Your task to perform on an android device: Find coffee shops on Maps Image 0: 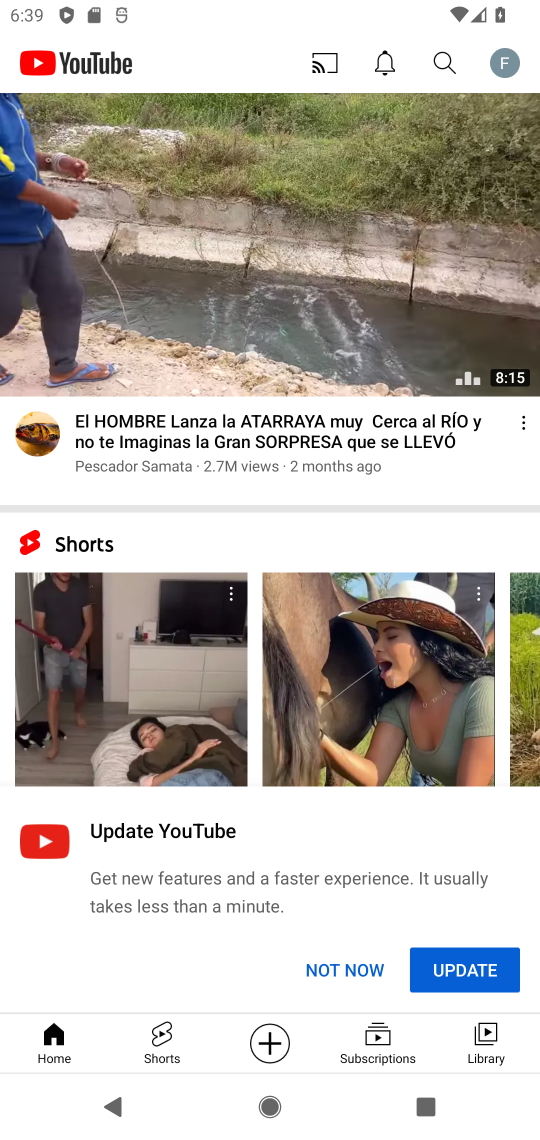
Step 0: press home button
Your task to perform on an android device: Find coffee shops on Maps Image 1: 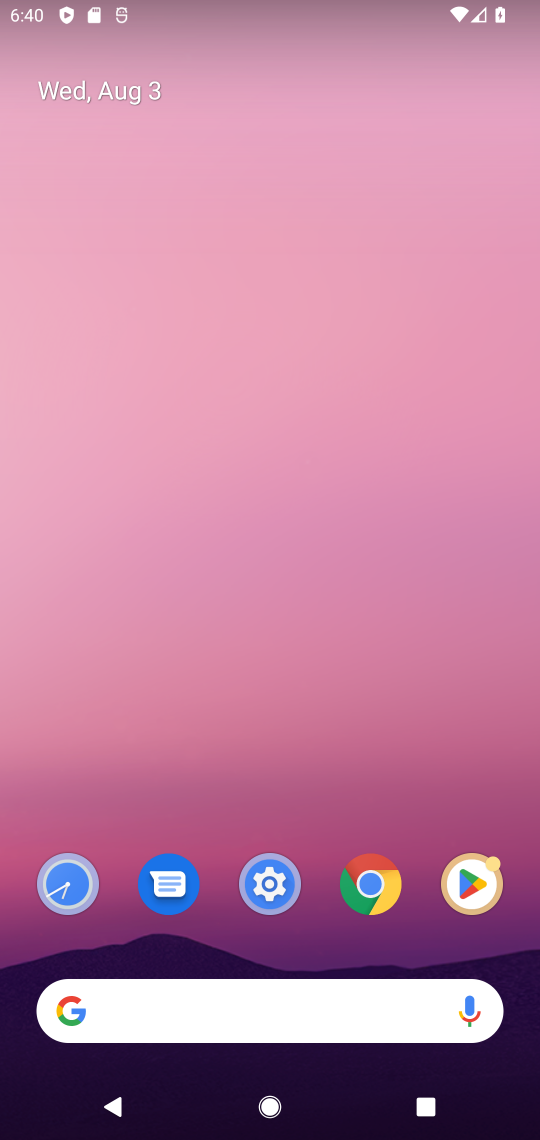
Step 1: drag from (333, 726) to (384, 134)
Your task to perform on an android device: Find coffee shops on Maps Image 2: 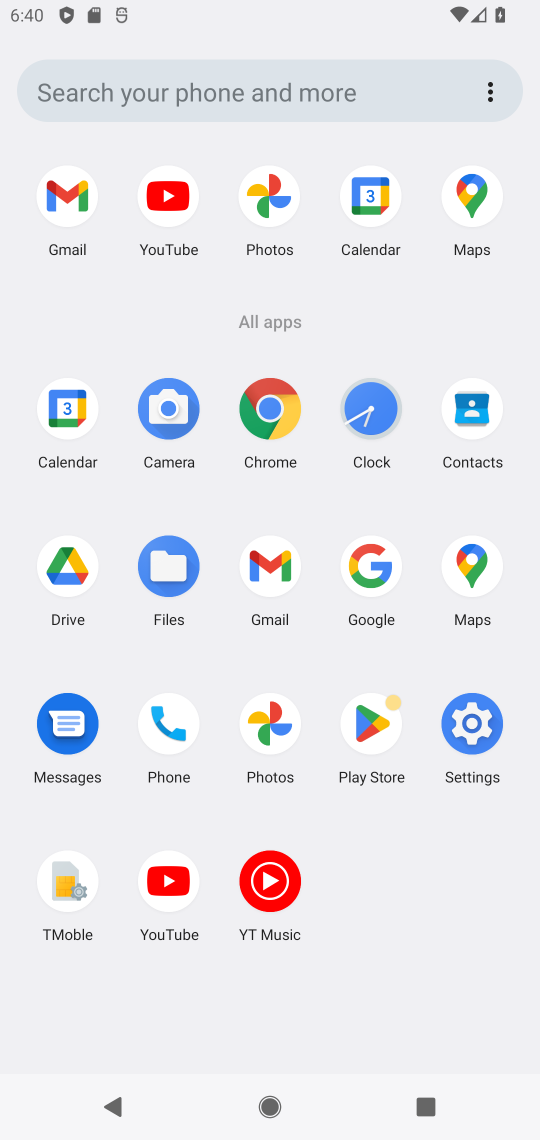
Step 2: click (465, 582)
Your task to perform on an android device: Find coffee shops on Maps Image 3: 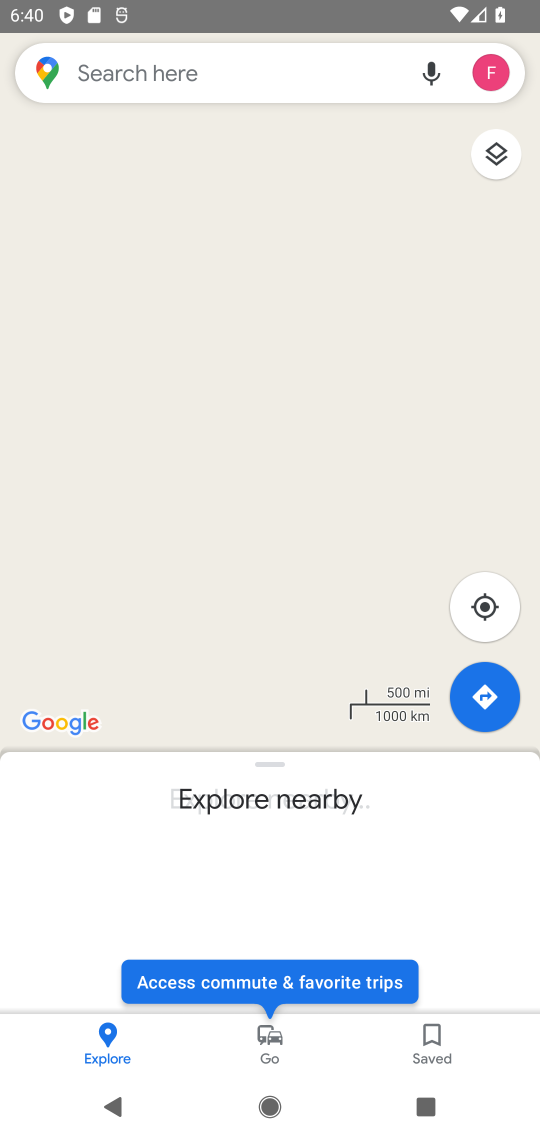
Step 3: click (256, 72)
Your task to perform on an android device: Find coffee shops on Maps Image 4: 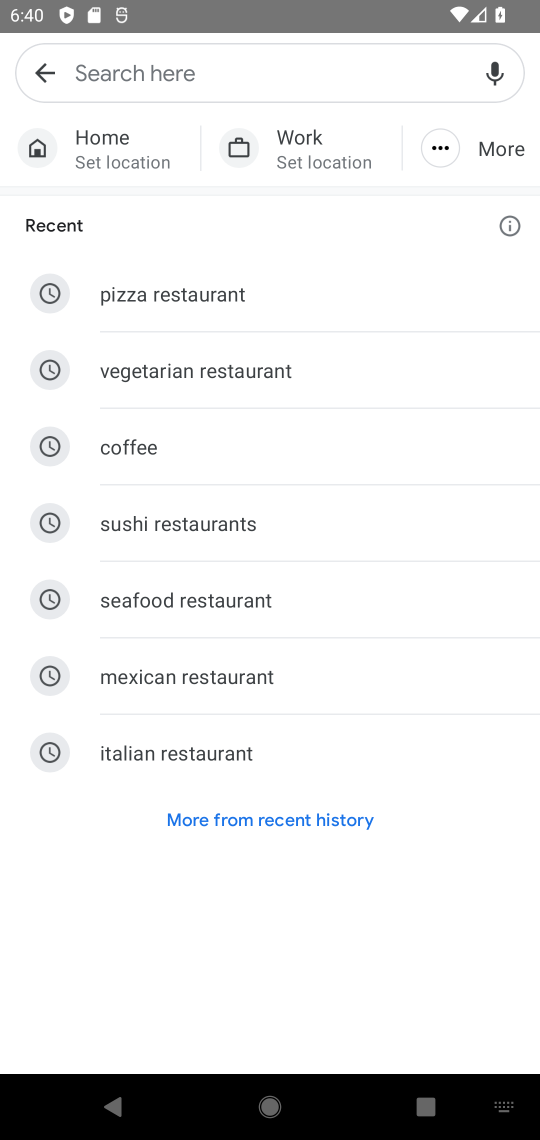
Step 4: type "coffee shops "
Your task to perform on an android device: Find coffee shops on Maps Image 5: 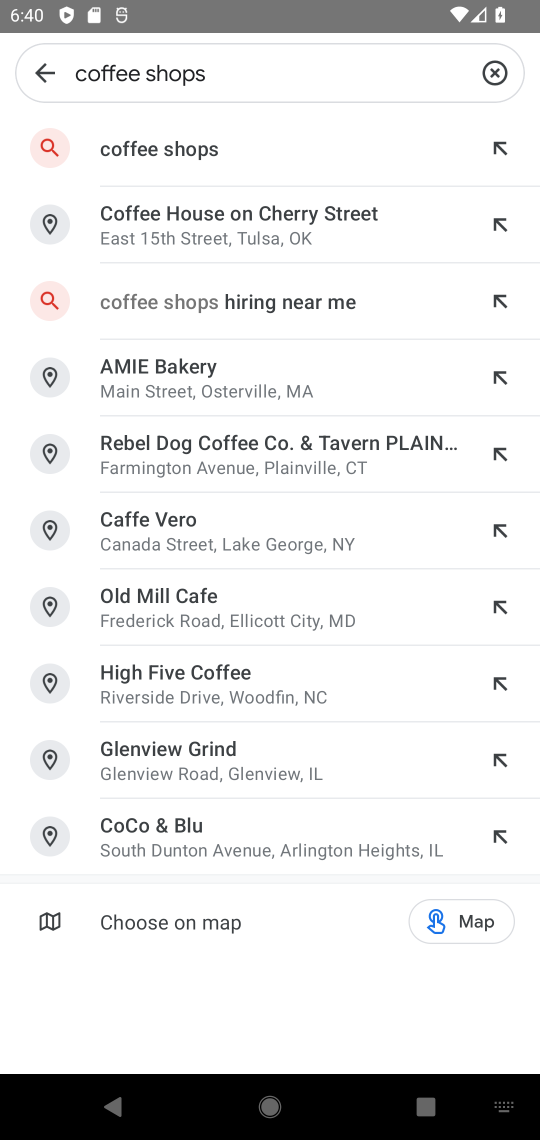
Step 5: press enter
Your task to perform on an android device: Find coffee shops on Maps Image 6: 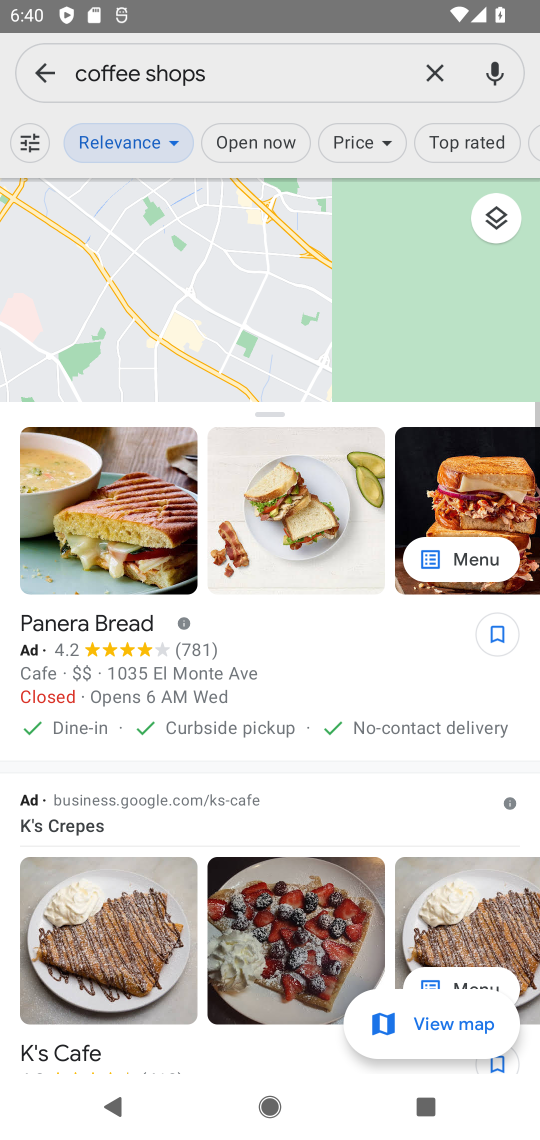
Step 6: task complete